Your task to perform on an android device: Show me the alarms in the clock app Image 0: 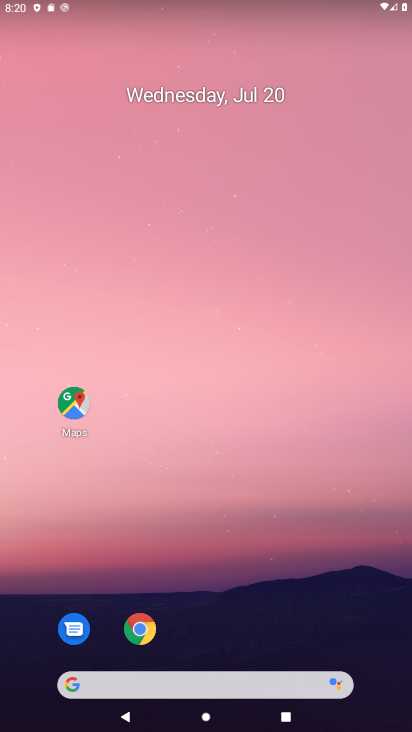
Step 0: drag from (195, 635) to (198, 146)
Your task to perform on an android device: Show me the alarms in the clock app Image 1: 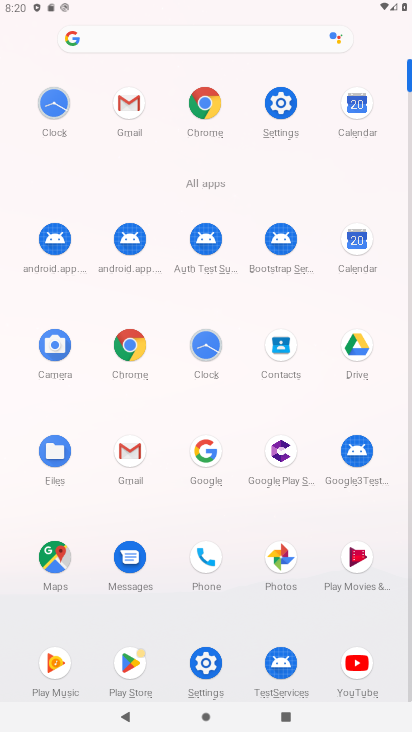
Step 1: click (52, 116)
Your task to perform on an android device: Show me the alarms in the clock app Image 2: 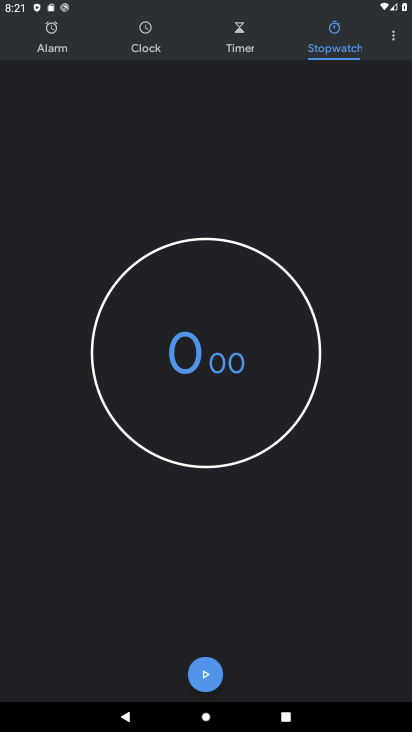
Step 2: click (54, 45)
Your task to perform on an android device: Show me the alarms in the clock app Image 3: 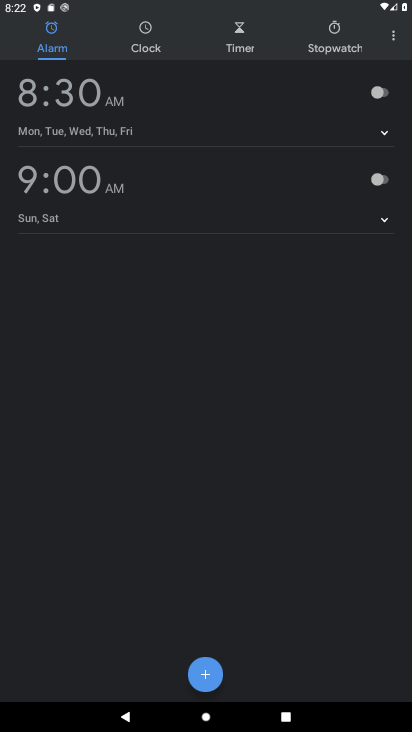
Step 3: task complete